Your task to perform on an android device: Search for pizza restaurants on Maps Image 0: 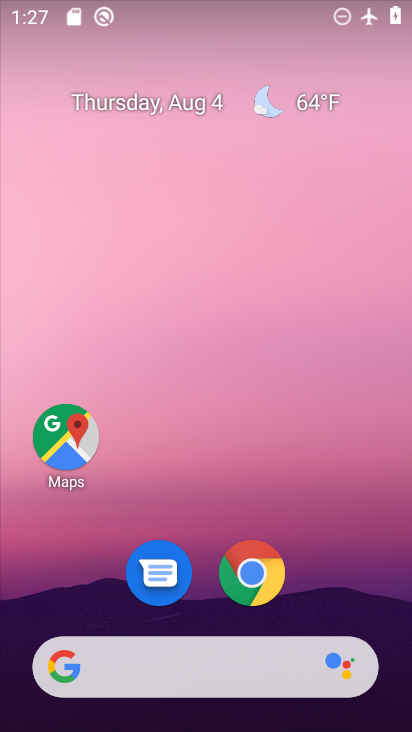
Step 0: drag from (346, 567) to (293, 40)
Your task to perform on an android device: Search for pizza restaurants on Maps Image 1: 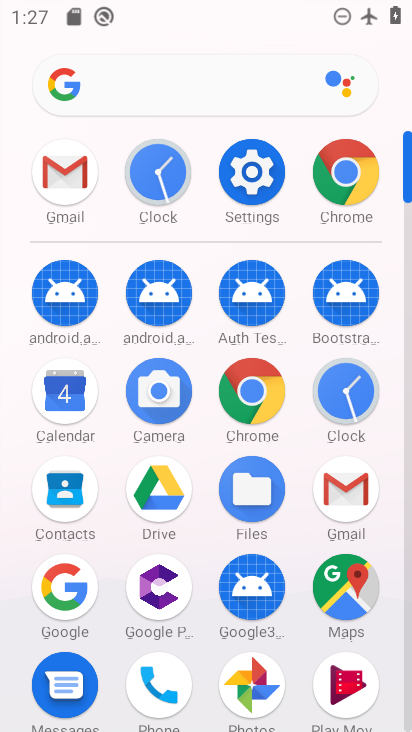
Step 1: click (344, 589)
Your task to perform on an android device: Search for pizza restaurants on Maps Image 2: 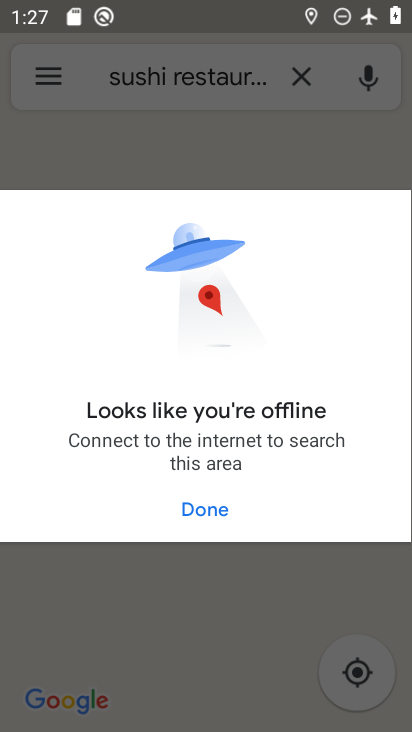
Step 2: click (245, 504)
Your task to perform on an android device: Search for pizza restaurants on Maps Image 3: 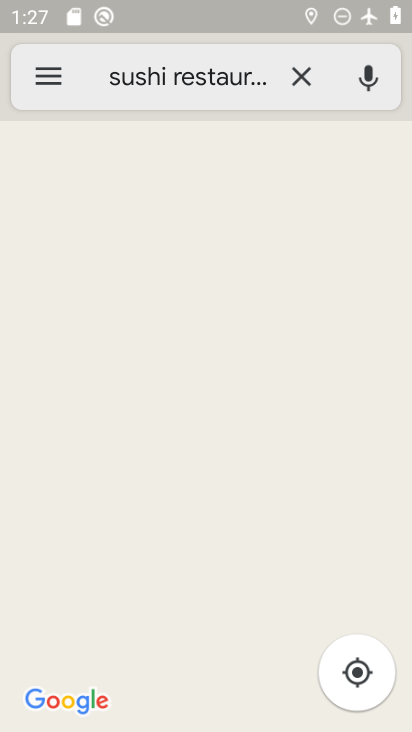
Step 3: click (257, 78)
Your task to perform on an android device: Search for pizza restaurants on Maps Image 4: 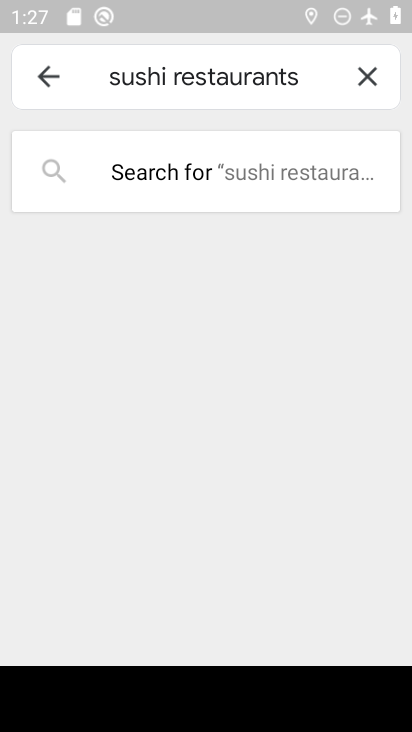
Step 4: click (371, 83)
Your task to perform on an android device: Search for pizza restaurants on Maps Image 5: 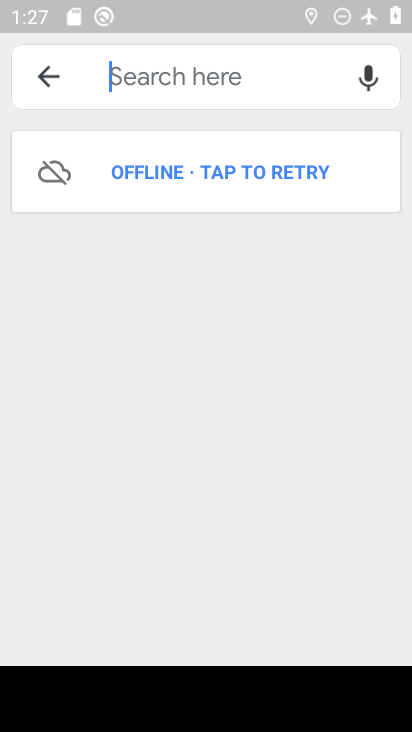
Step 5: type "pizza restaurants"
Your task to perform on an android device: Search for pizza restaurants on Maps Image 6: 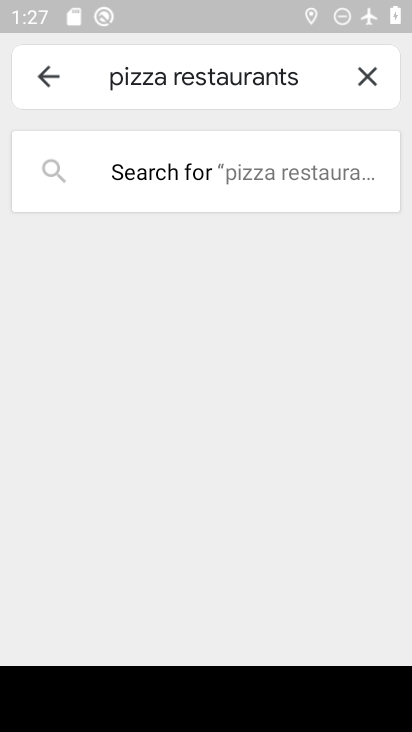
Step 6: press enter
Your task to perform on an android device: Search for pizza restaurants on Maps Image 7: 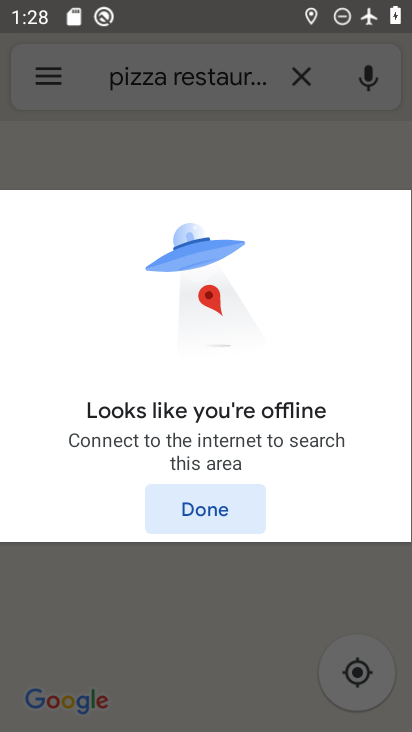
Step 7: task complete